Your task to perform on an android device: Show me productivity apps on the Play Store Image 0: 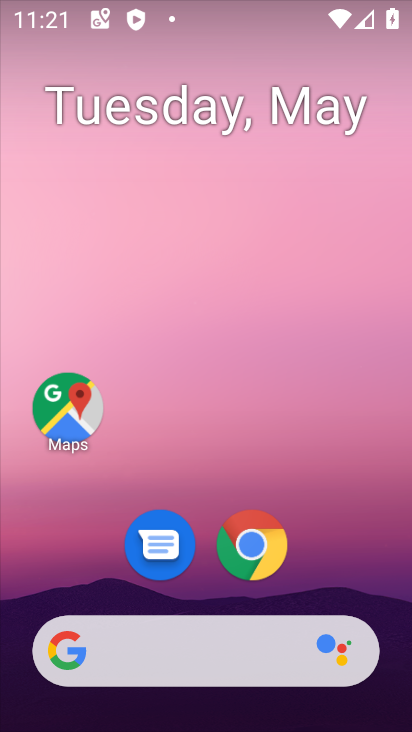
Step 0: drag from (213, 470) to (218, 34)
Your task to perform on an android device: Show me productivity apps on the Play Store Image 1: 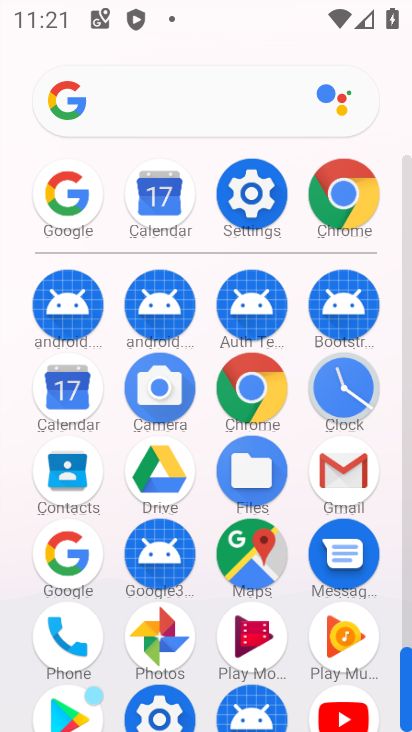
Step 1: drag from (226, 572) to (282, 162)
Your task to perform on an android device: Show me productivity apps on the Play Store Image 2: 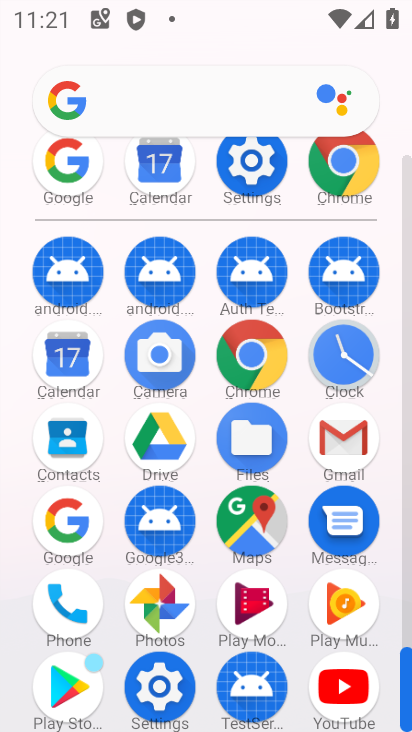
Step 2: drag from (219, 538) to (231, 255)
Your task to perform on an android device: Show me productivity apps on the Play Store Image 3: 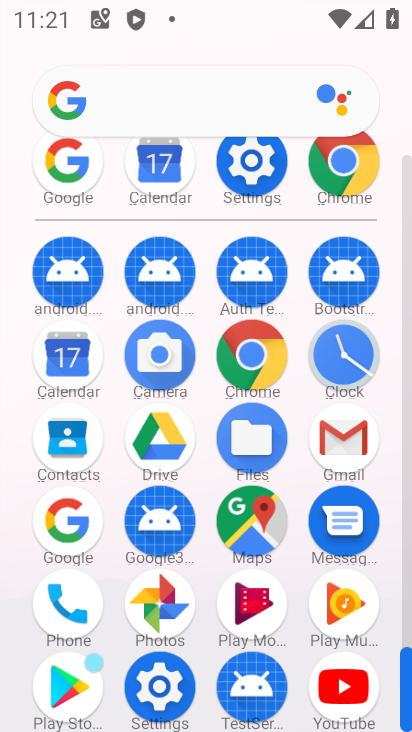
Step 3: click (92, 683)
Your task to perform on an android device: Show me productivity apps on the Play Store Image 4: 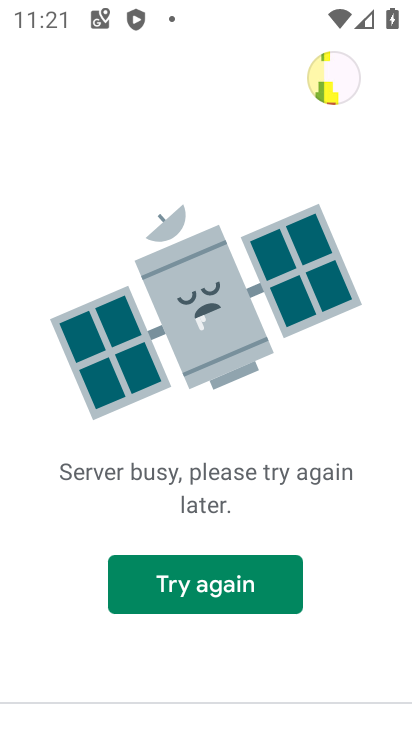
Step 4: task complete